Your task to perform on an android device: Go to Google maps Image 0: 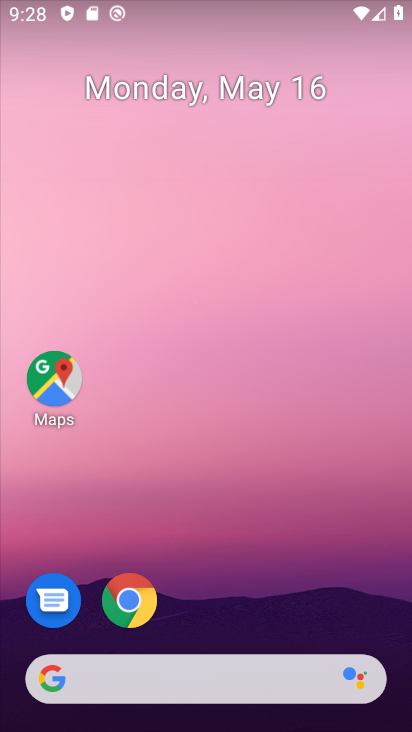
Step 0: drag from (292, 580) to (294, 500)
Your task to perform on an android device: Go to Google maps Image 1: 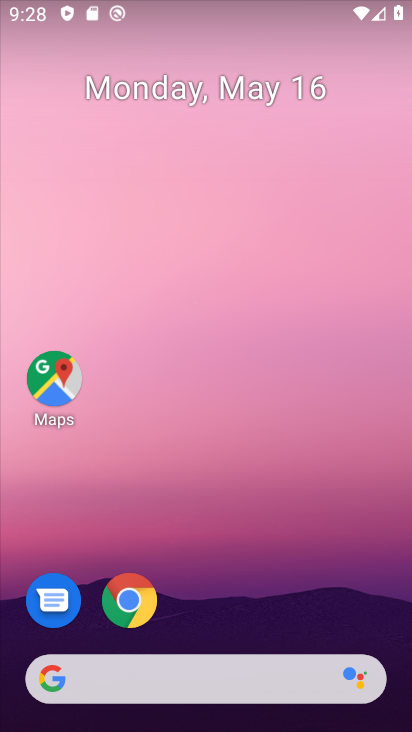
Step 1: click (61, 370)
Your task to perform on an android device: Go to Google maps Image 2: 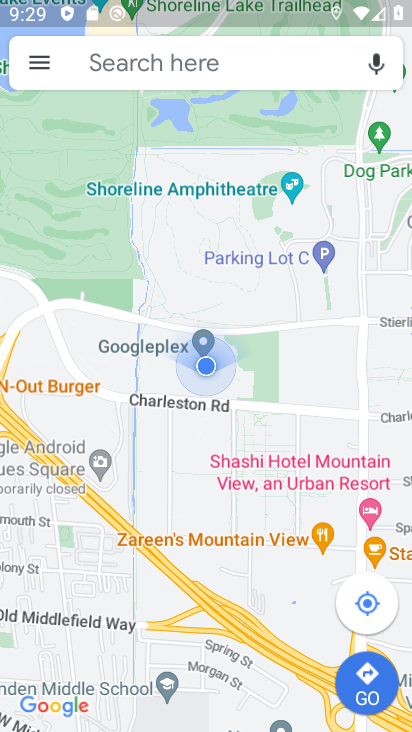
Step 2: task complete